Your task to perform on an android device: turn off translation in the chrome app Image 0: 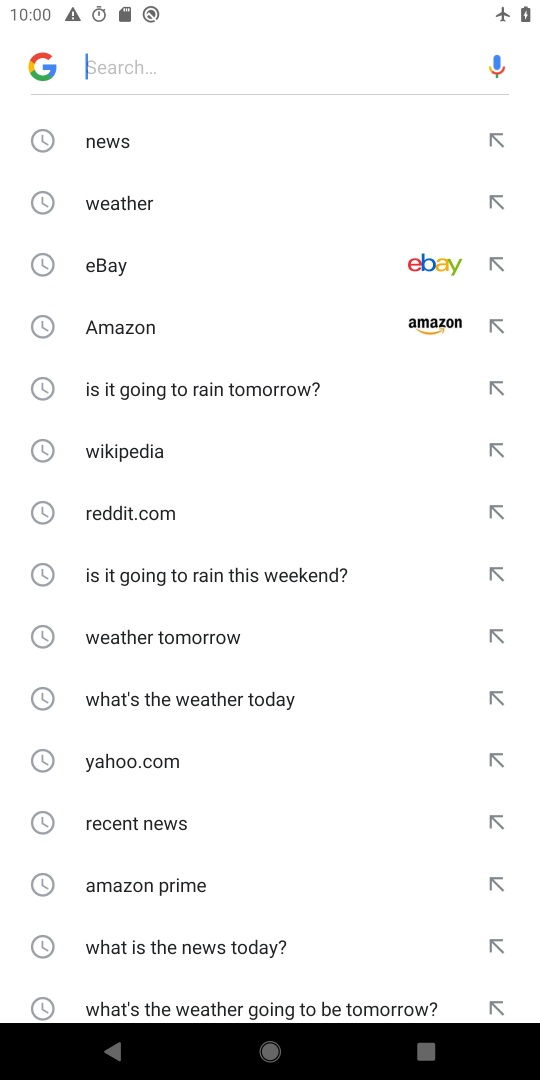
Step 0: click (532, 399)
Your task to perform on an android device: turn off translation in the chrome app Image 1: 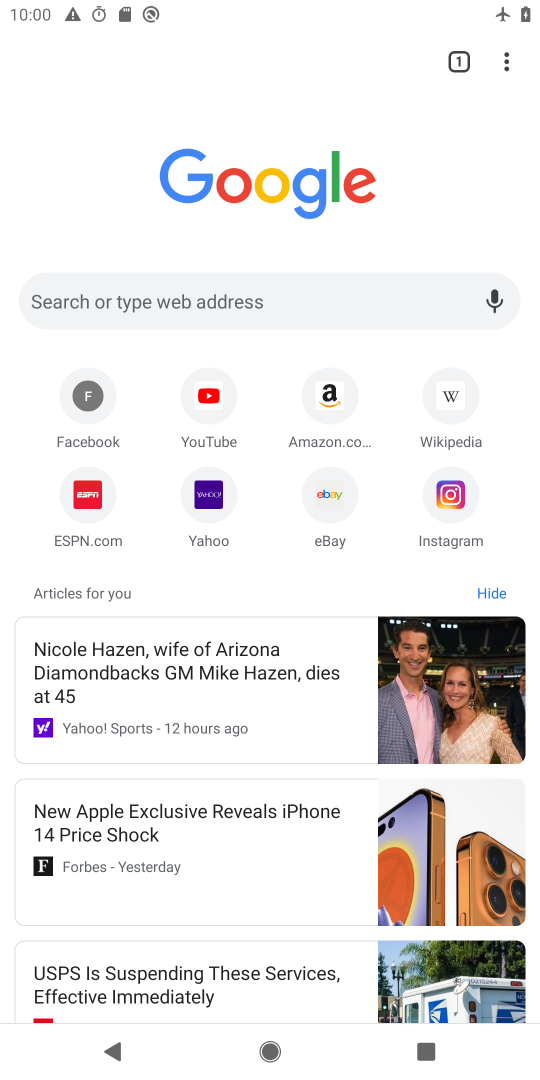
Step 1: click (501, 61)
Your task to perform on an android device: turn off translation in the chrome app Image 2: 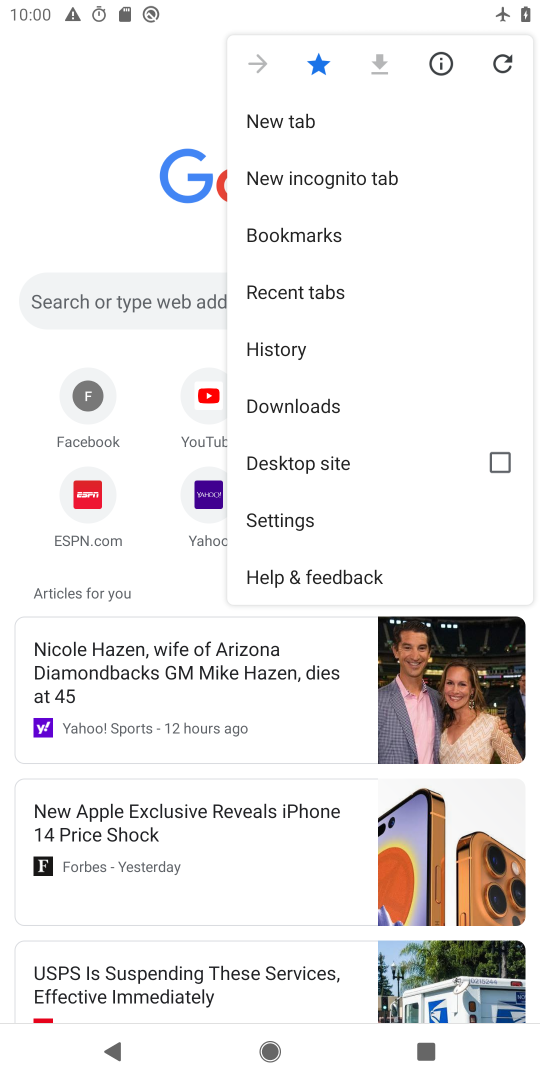
Step 2: click (299, 514)
Your task to perform on an android device: turn off translation in the chrome app Image 3: 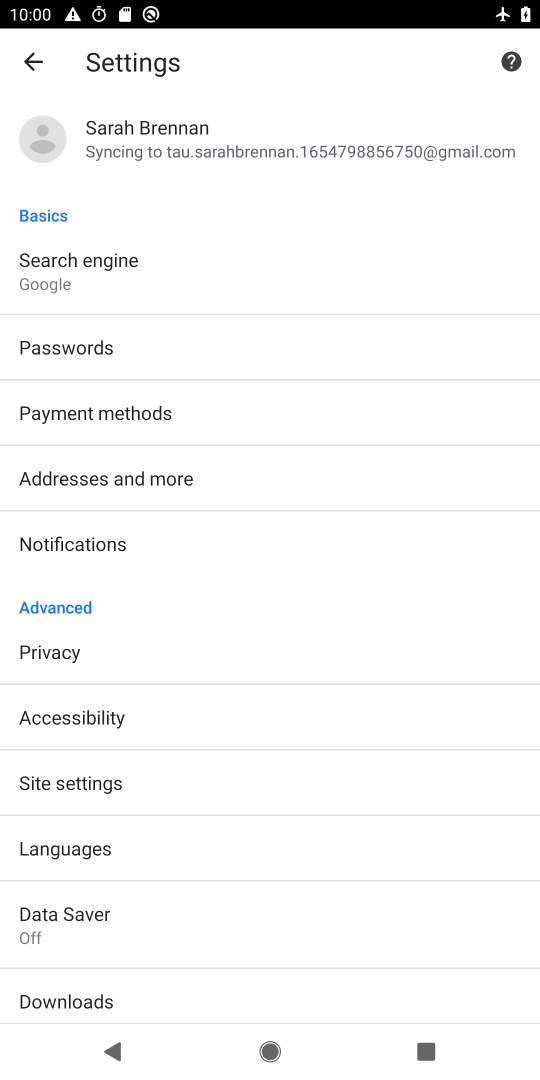
Step 3: click (88, 858)
Your task to perform on an android device: turn off translation in the chrome app Image 4: 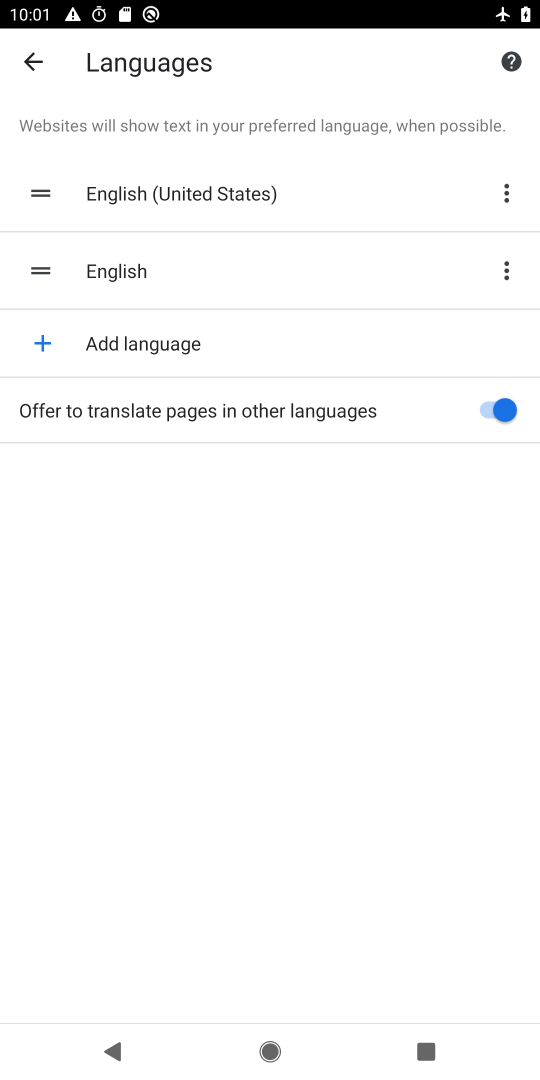
Step 4: click (452, 425)
Your task to perform on an android device: turn off translation in the chrome app Image 5: 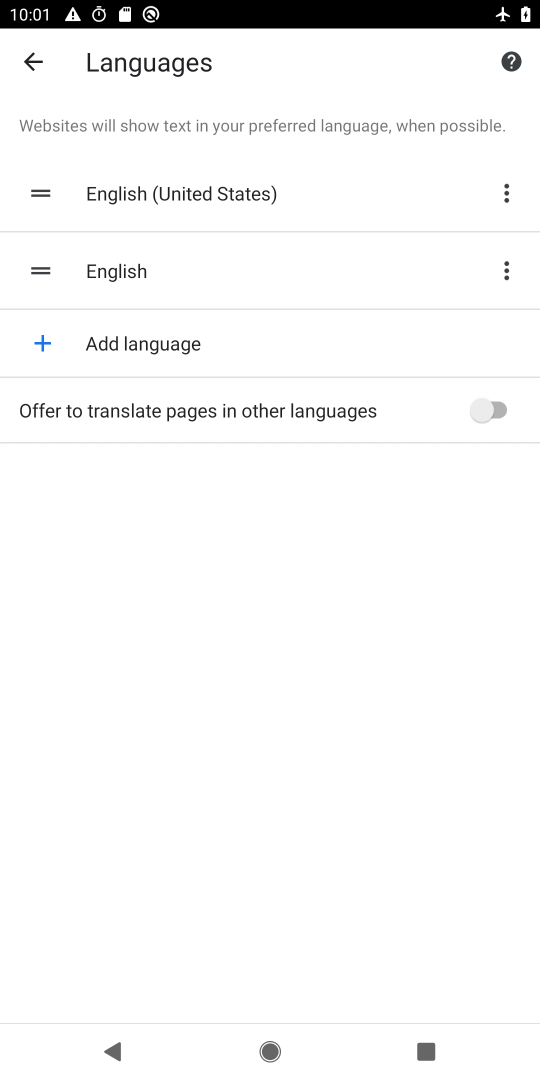
Step 5: task complete